Your task to perform on an android device: turn off smart reply in the gmail app Image 0: 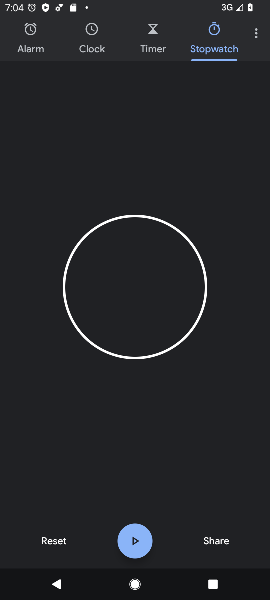
Step 0: press home button
Your task to perform on an android device: turn off smart reply in the gmail app Image 1: 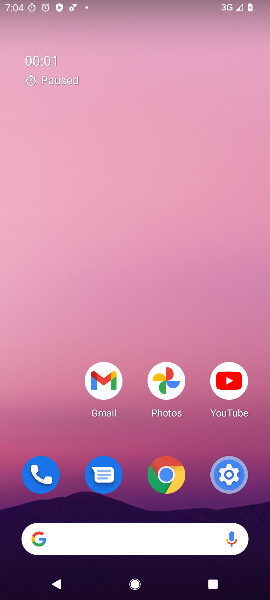
Step 1: drag from (207, 496) to (130, 41)
Your task to perform on an android device: turn off smart reply in the gmail app Image 2: 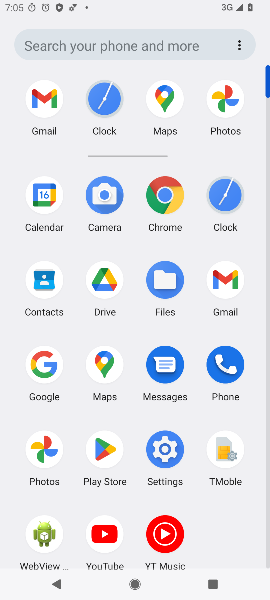
Step 2: click (220, 283)
Your task to perform on an android device: turn off smart reply in the gmail app Image 3: 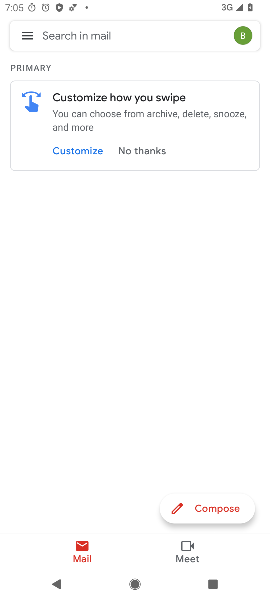
Step 3: click (25, 28)
Your task to perform on an android device: turn off smart reply in the gmail app Image 4: 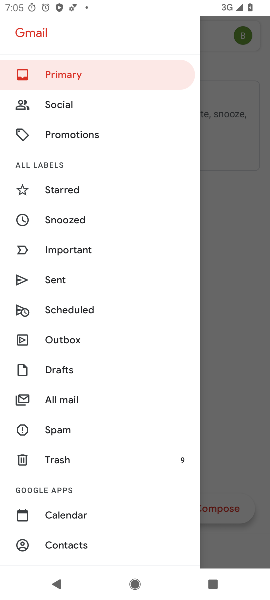
Step 4: drag from (93, 532) to (41, 9)
Your task to perform on an android device: turn off smart reply in the gmail app Image 5: 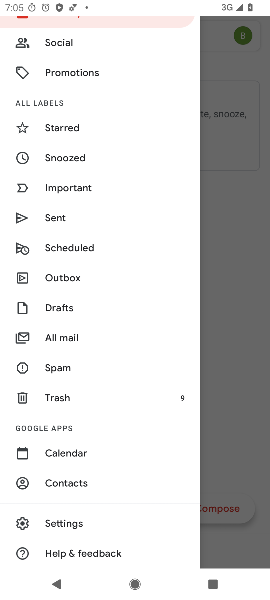
Step 5: click (61, 522)
Your task to perform on an android device: turn off smart reply in the gmail app Image 6: 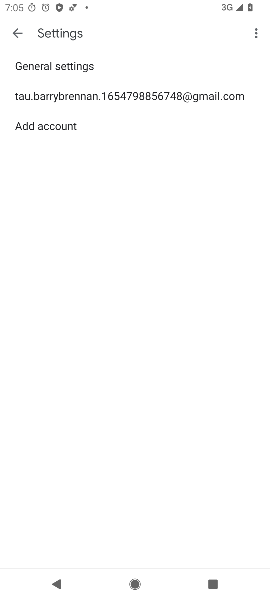
Step 6: click (80, 93)
Your task to perform on an android device: turn off smart reply in the gmail app Image 7: 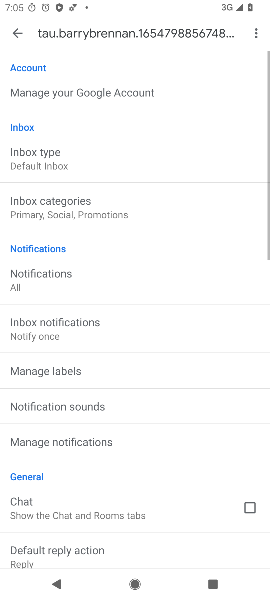
Step 7: drag from (140, 509) to (123, 234)
Your task to perform on an android device: turn off smart reply in the gmail app Image 8: 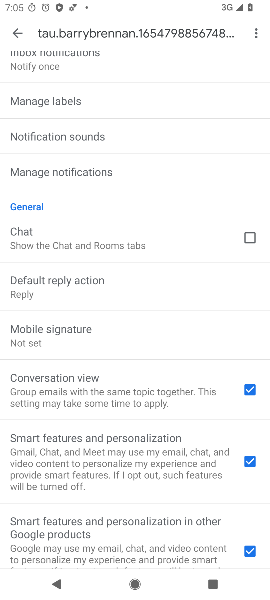
Step 8: drag from (163, 528) to (152, 345)
Your task to perform on an android device: turn off smart reply in the gmail app Image 9: 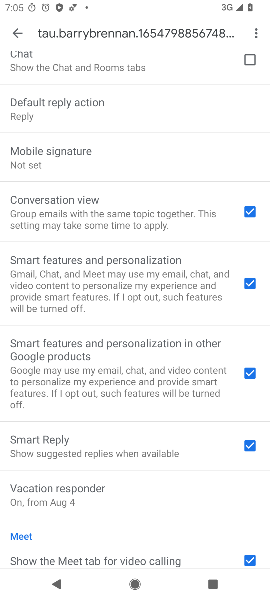
Step 9: click (163, 450)
Your task to perform on an android device: turn off smart reply in the gmail app Image 10: 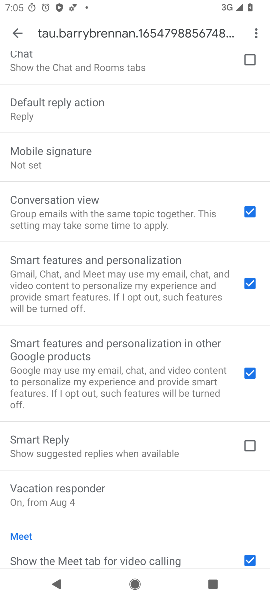
Step 10: task complete